Your task to perform on an android device: Open location settings Image 0: 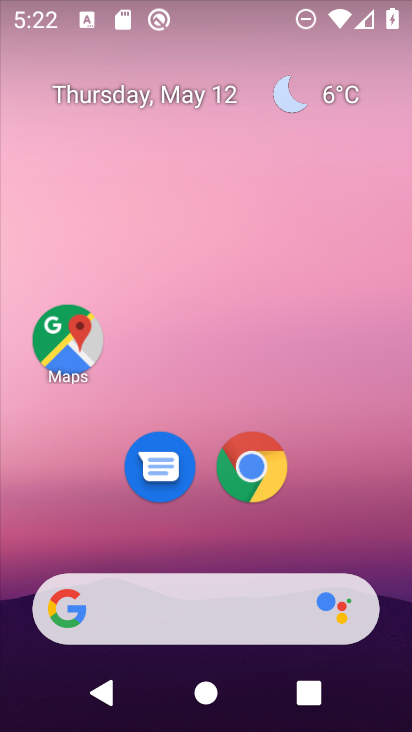
Step 0: drag from (314, 604) to (332, 0)
Your task to perform on an android device: Open location settings Image 1: 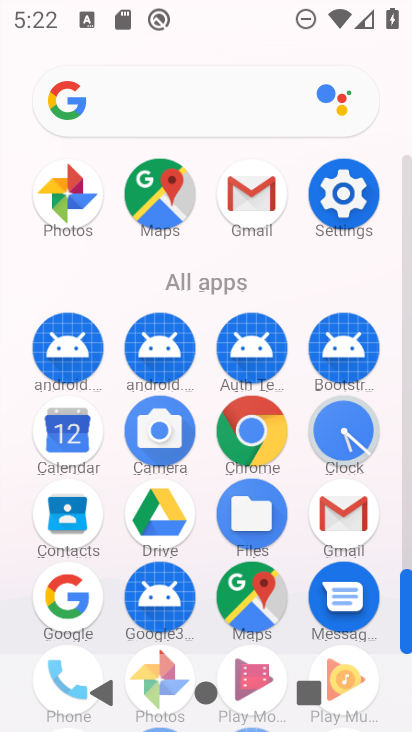
Step 1: click (361, 184)
Your task to perform on an android device: Open location settings Image 2: 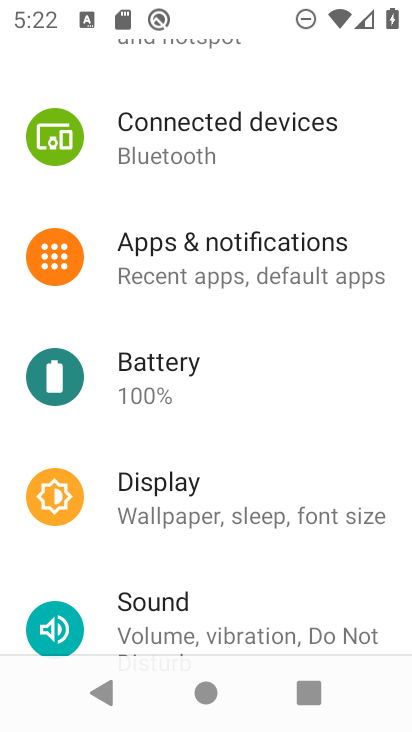
Step 2: drag from (289, 192) to (263, 53)
Your task to perform on an android device: Open location settings Image 3: 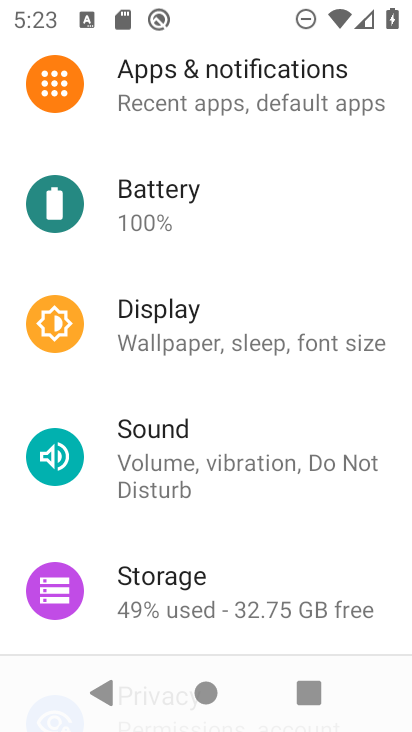
Step 3: drag from (197, 629) to (240, 83)
Your task to perform on an android device: Open location settings Image 4: 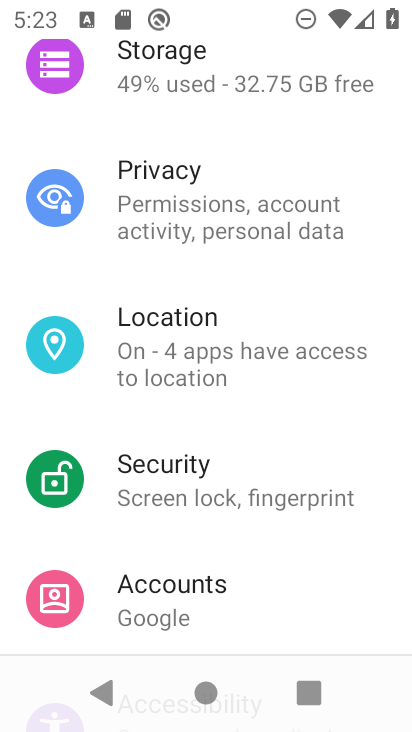
Step 4: click (265, 336)
Your task to perform on an android device: Open location settings Image 5: 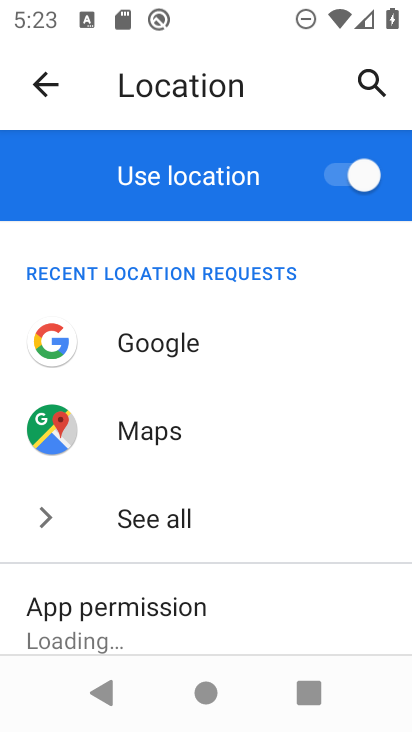
Step 5: task complete